Your task to perform on an android device: toggle improve location accuracy Image 0: 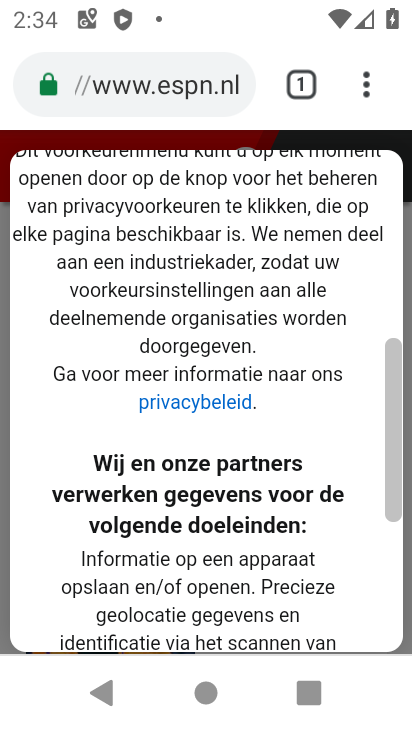
Step 0: drag from (227, 610) to (262, 323)
Your task to perform on an android device: toggle improve location accuracy Image 1: 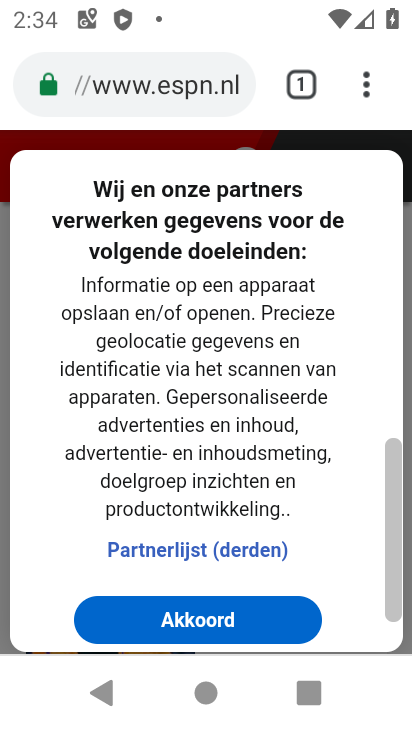
Step 1: click (376, 83)
Your task to perform on an android device: toggle improve location accuracy Image 2: 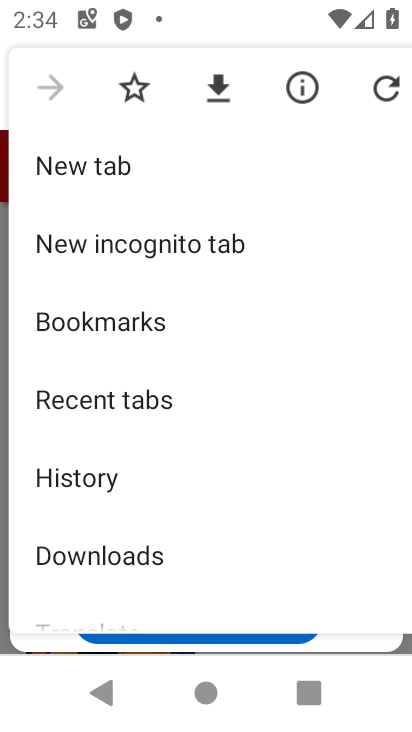
Step 2: drag from (184, 551) to (233, 168)
Your task to perform on an android device: toggle improve location accuracy Image 3: 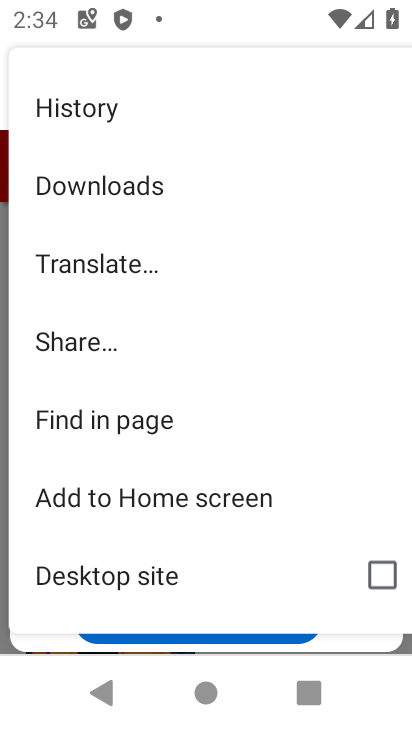
Step 3: drag from (138, 501) to (179, 92)
Your task to perform on an android device: toggle improve location accuracy Image 4: 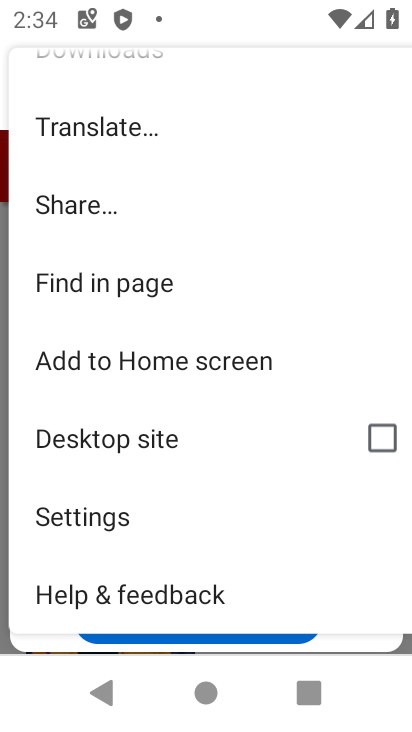
Step 4: press home button
Your task to perform on an android device: toggle improve location accuracy Image 5: 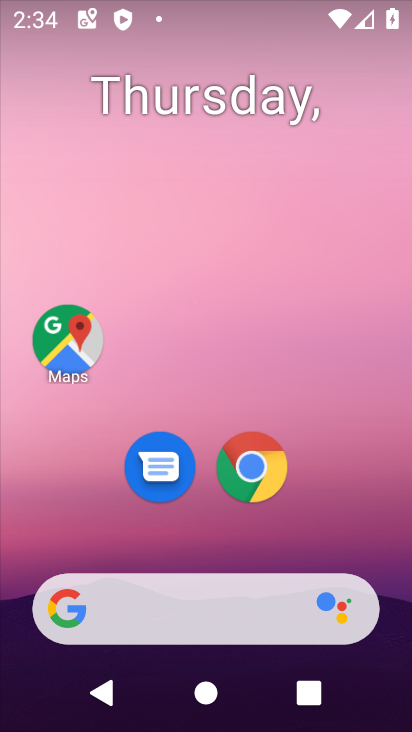
Step 5: drag from (199, 490) to (225, 228)
Your task to perform on an android device: toggle improve location accuracy Image 6: 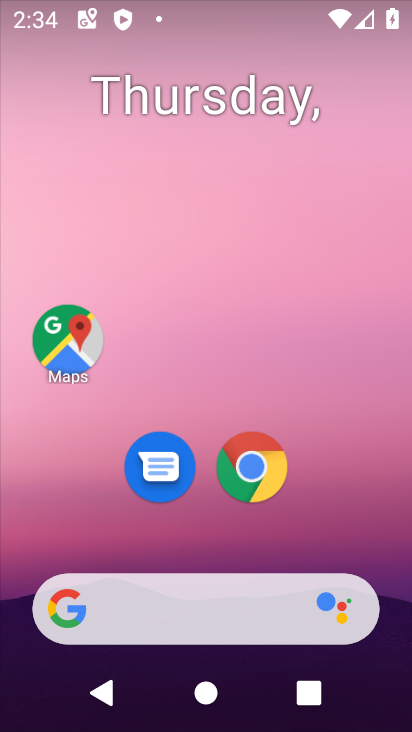
Step 6: drag from (212, 566) to (211, 170)
Your task to perform on an android device: toggle improve location accuracy Image 7: 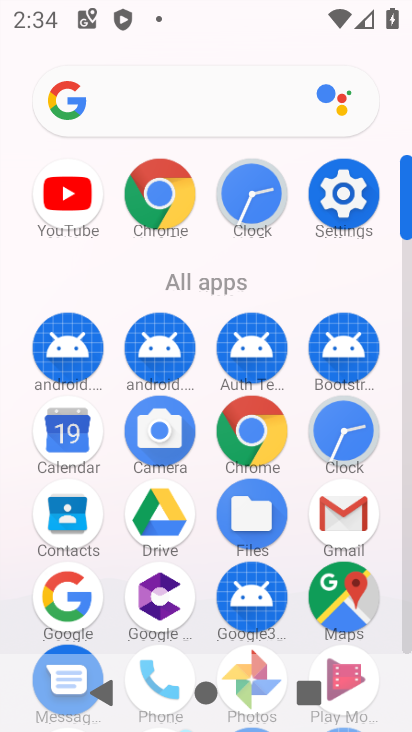
Step 7: click (342, 182)
Your task to perform on an android device: toggle improve location accuracy Image 8: 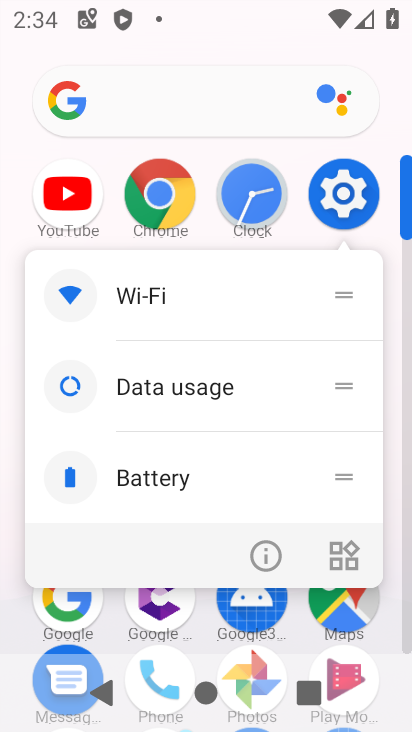
Step 8: click (251, 549)
Your task to perform on an android device: toggle improve location accuracy Image 9: 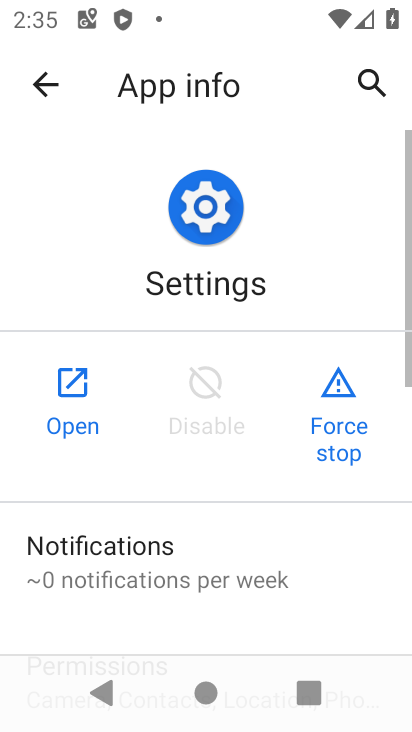
Step 9: click (65, 389)
Your task to perform on an android device: toggle improve location accuracy Image 10: 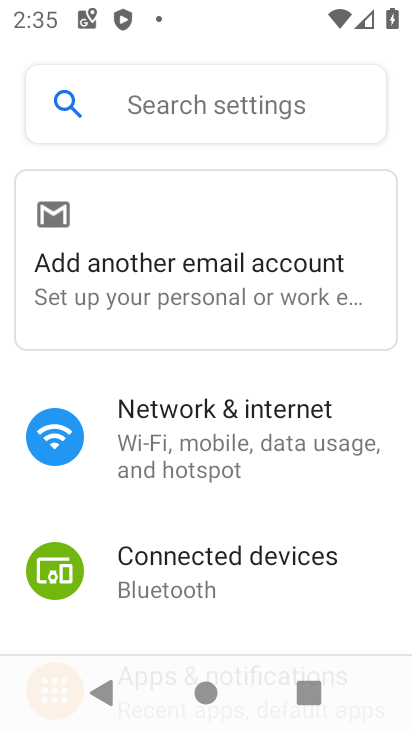
Step 10: drag from (196, 560) to (267, 124)
Your task to perform on an android device: toggle improve location accuracy Image 11: 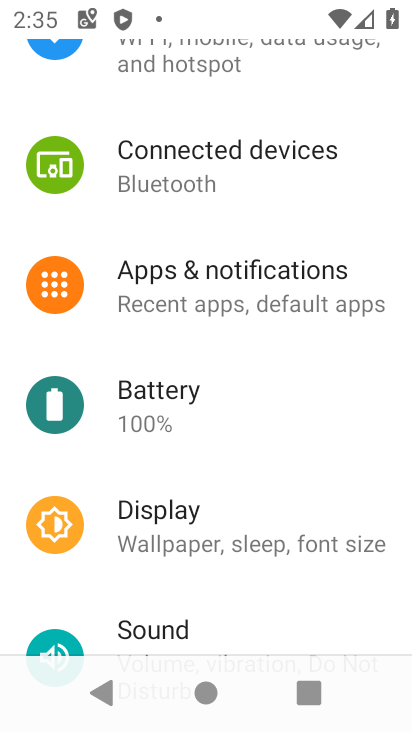
Step 11: drag from (200, 563) to (261, 103)
Your task to perform on an android device: toggle improve location accuracy Image 12: 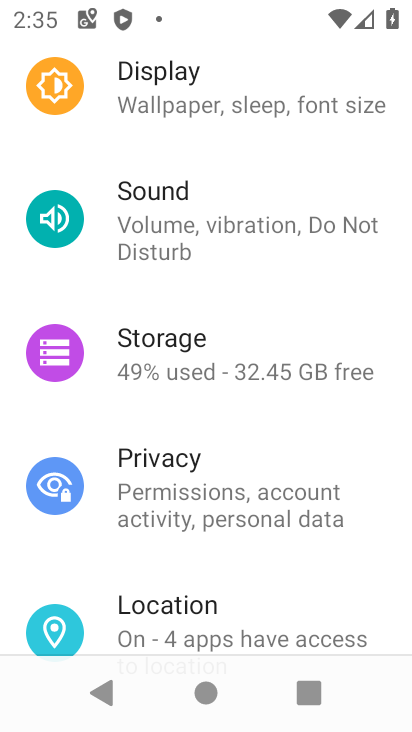
Step 12: drag from (170, 530) to (309, 3)
Your task to perform on an android device: toggle improve location accuracy Image 13: 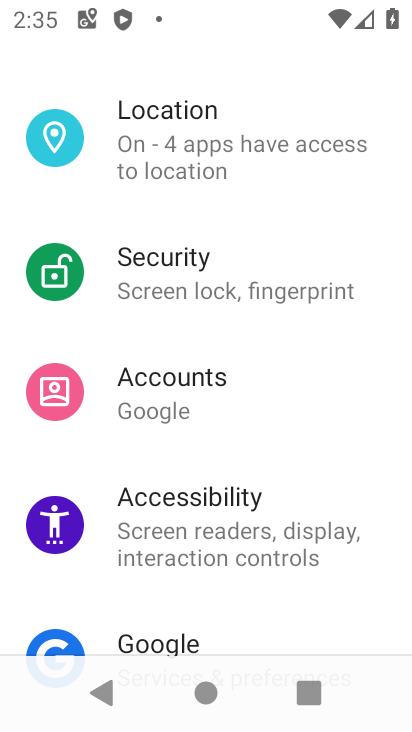
Step 13: click (211, 144)
Your task to perform on an android device: toggle improve location accuracy Image 14: 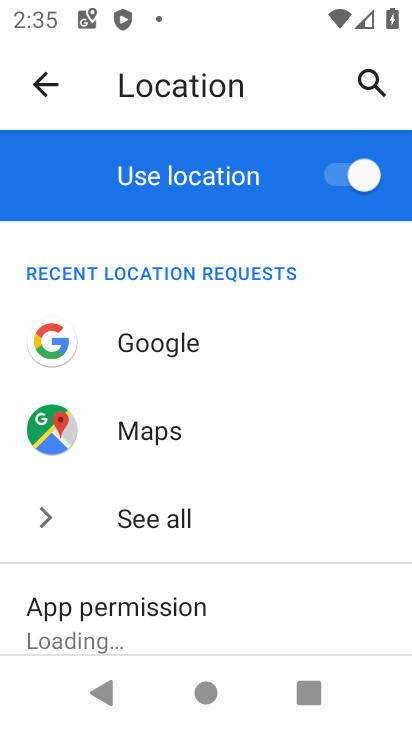
Step 14: drag from (176, 552) to (253, 0)
Your task to perform on an android device: toggle improve location accuracy Image 15: 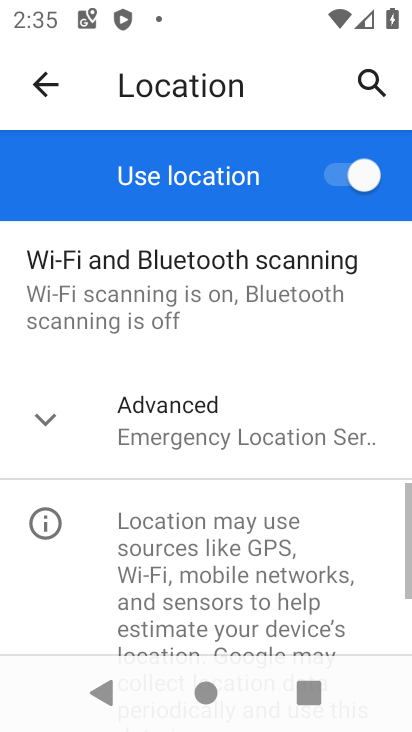
Step 15: click (145, 406)
Your task to perform on an android device: toggle improve location accuracy Image 16: 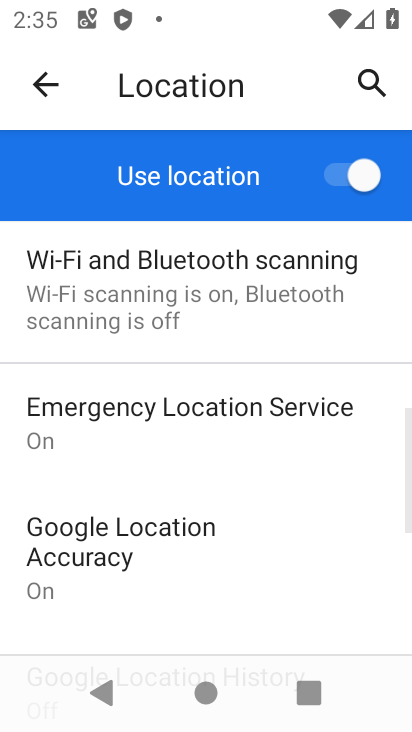
Step 16: click (196, 566)
Your task to perform on an android device: toggle improve location accuracy Image 17: 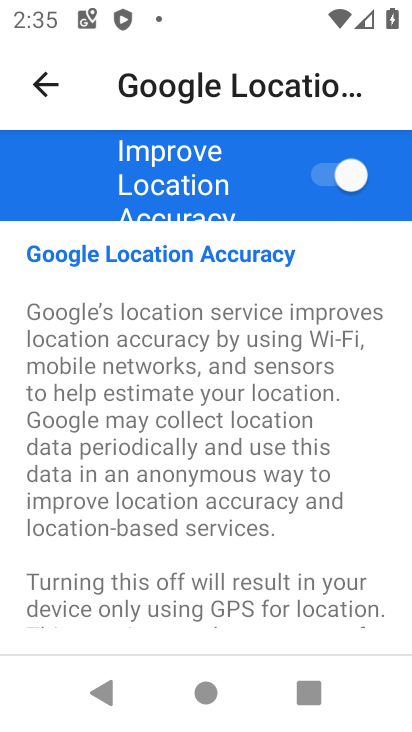
Step 17: click (337, 180)
Your task to perform on an android device: toggle improve location accuracy Image 18: 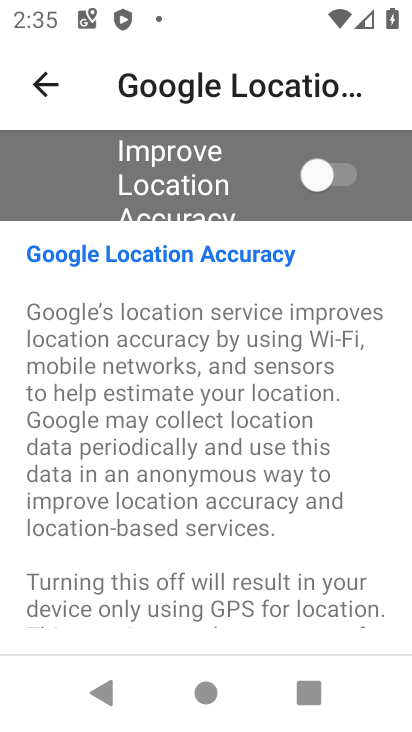
Step 18: task complete